Your task to perform on an android device: Open Chrome and go to settings Image 0: 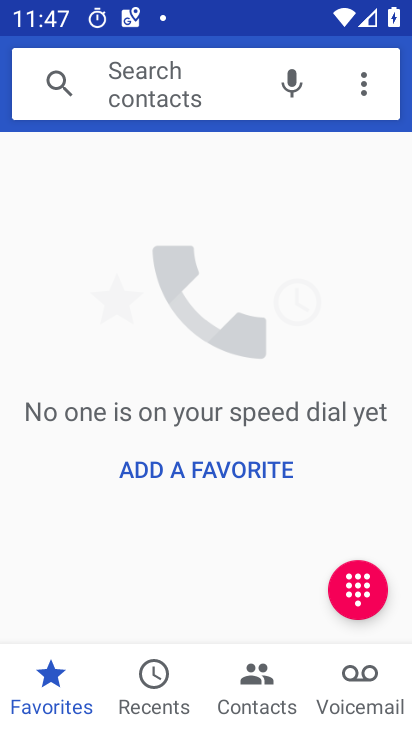
Step 0: press home button
Your task to perform on an android device: Open Chrome and go to settings Image 1: 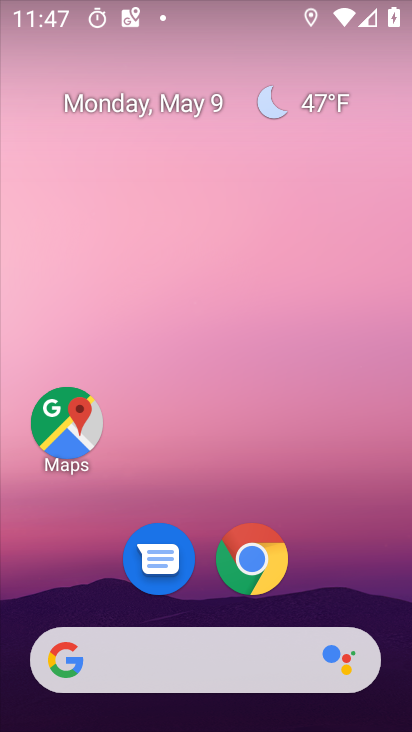
Step 1: click (264, 561)
Your task to perform on an android device: Open Chrome and go to settings Image 2: 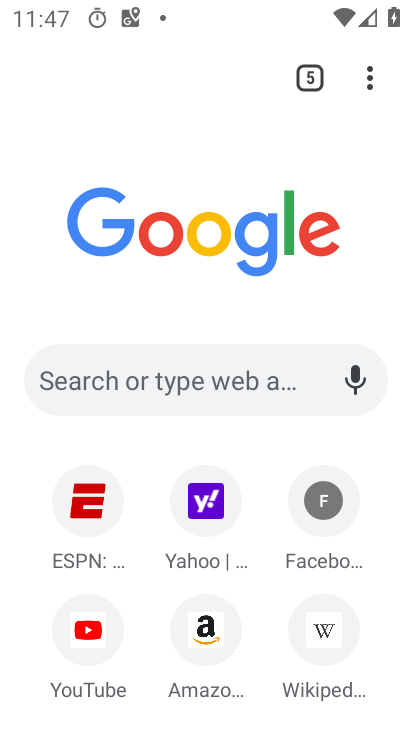
Step 2: click (370, 84)
Your task to perform on an android device: Open Chrome and go to settings Image 3: 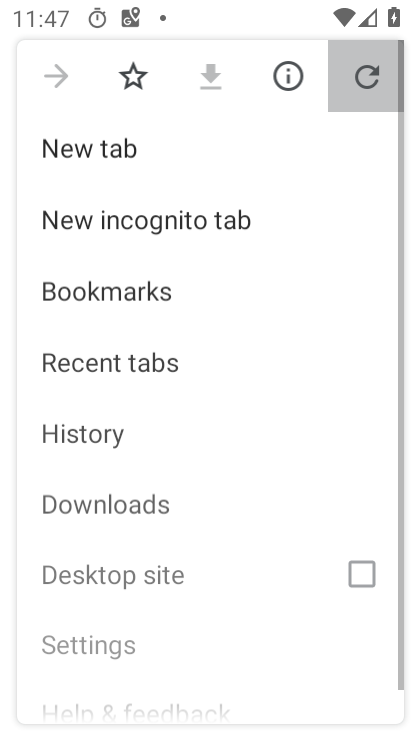
Step 3: task complete